Your task to perform on an android device: Empty the shopping cart on target. Add "jbl flip 4" to the cart on target, then select checkout. Image 0: 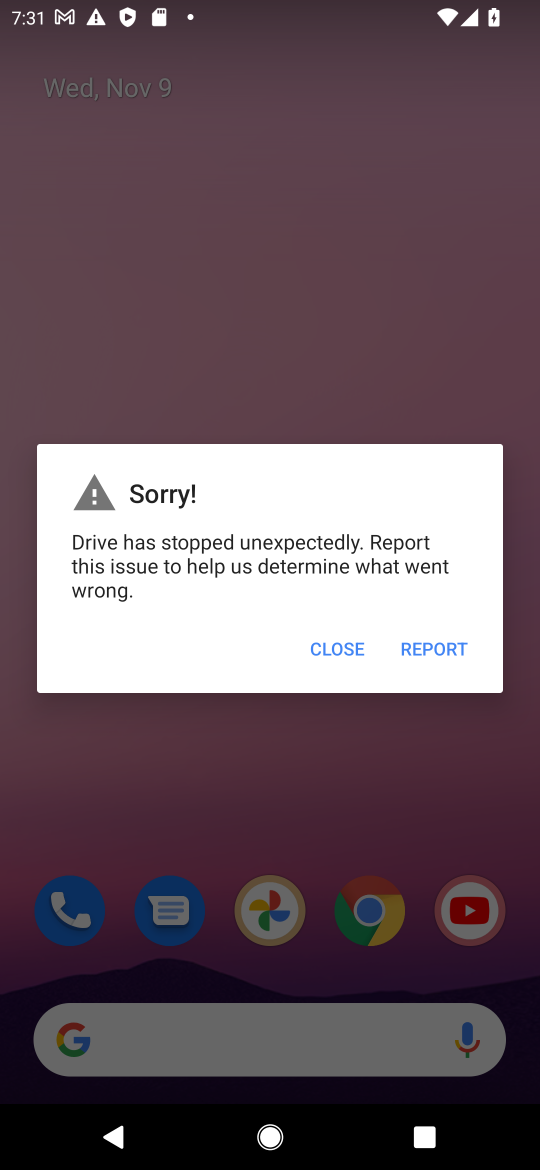
Step 0: press home button
Your task to perform on an android device: Empty the shopping cart on target. Add "jbl flip 4" to the cart on target, then select checkout. Image 1: 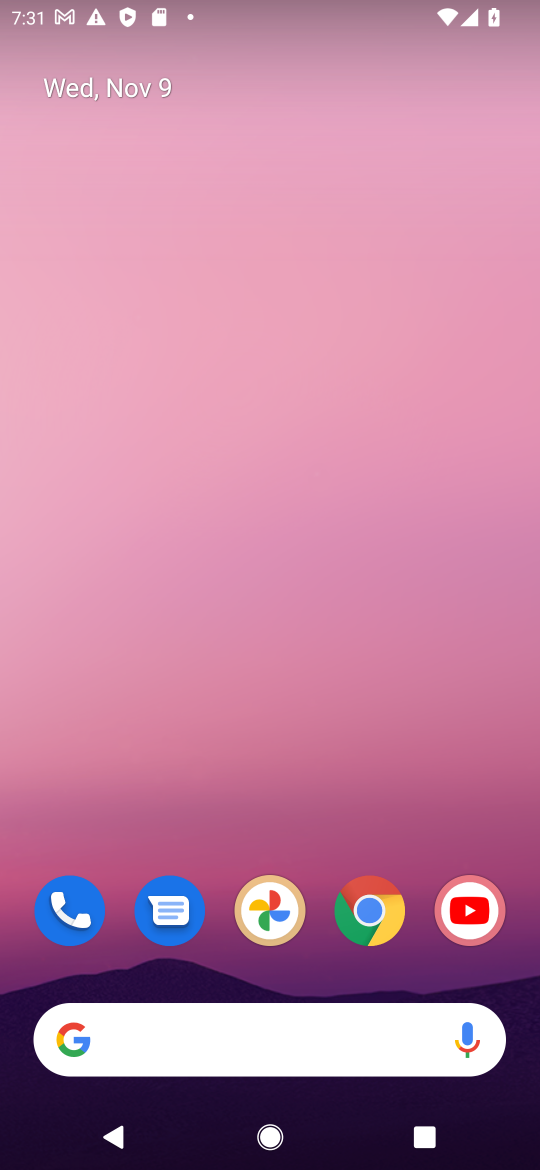
Step 1: click (372, 933)
Your task to perform on an android device: Empty the shopping cart on target. Add "jbl flip 4" to the cart on target, then select checkout. Image 2: 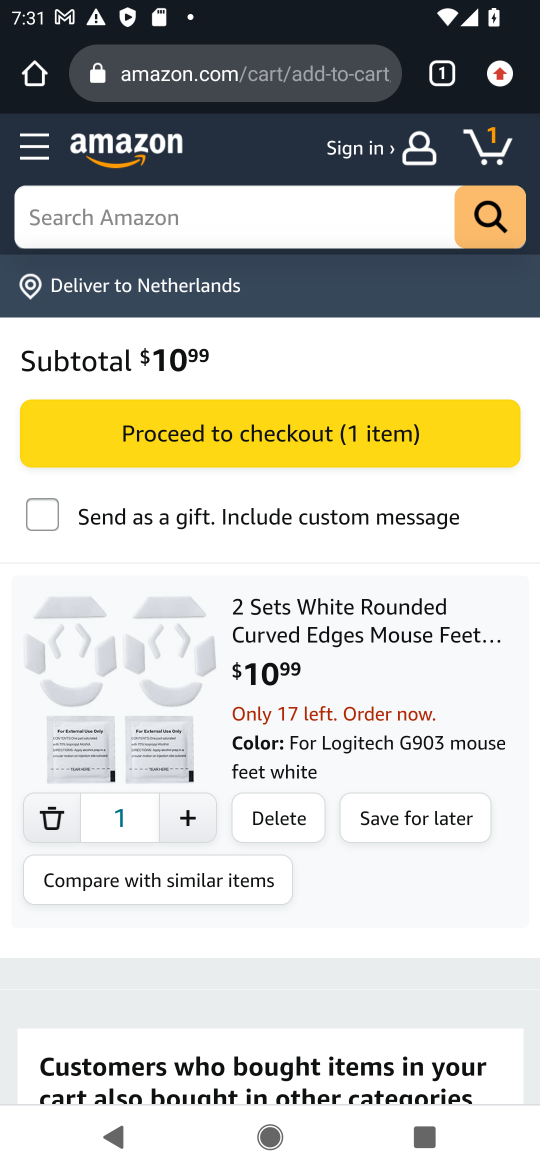
Step 2: click (203, 83)
Your task to perform on an android device: Empty the shopping cart on target. Add "jbl flip 4" to the cart on target, then select checkout. Image 3: 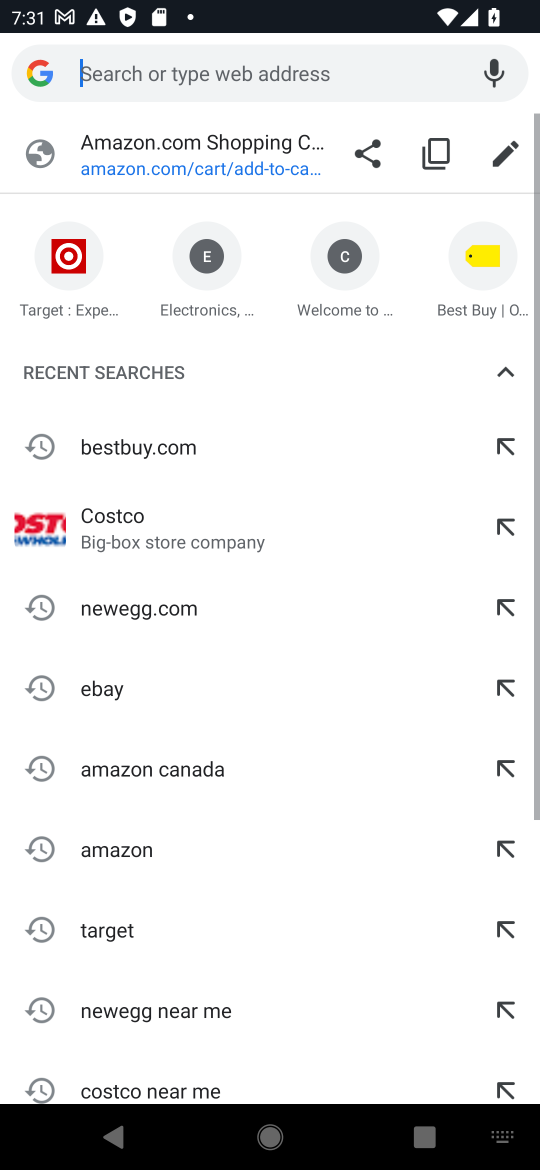
Step 3: click (72, 271)
Your task to perform on an android device: Empty the shopping cart on target. Add "jbl flip 4" to the cart on target, then select checkout. Image 4: 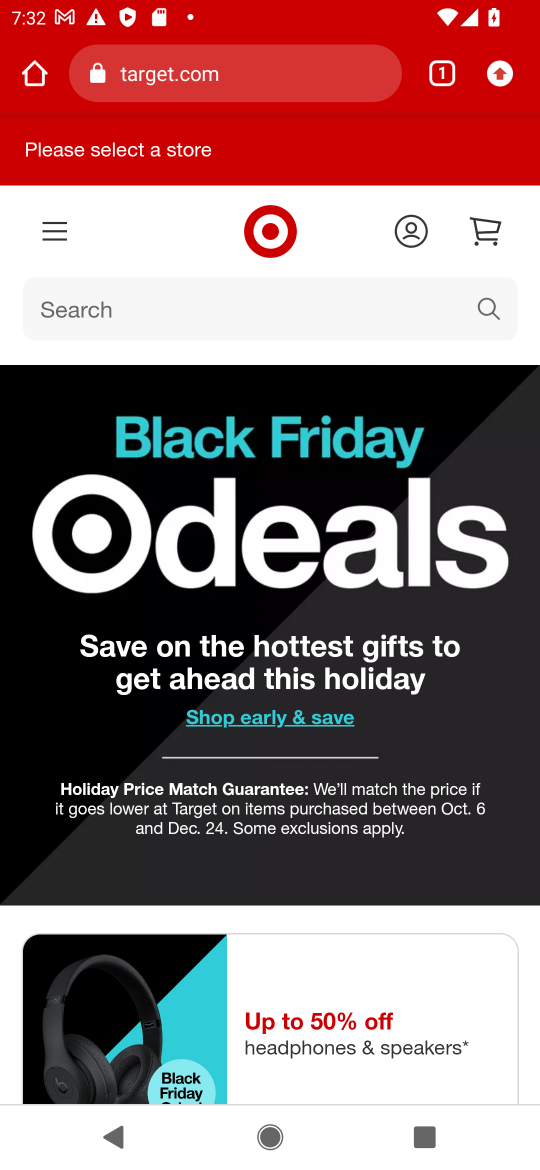
Step 4: click (496, 232)
Your task to perform on an android device: Empty the shopping cart on target. Add "jbl flip 4" to the cart on target, then select checkout. Image 5: 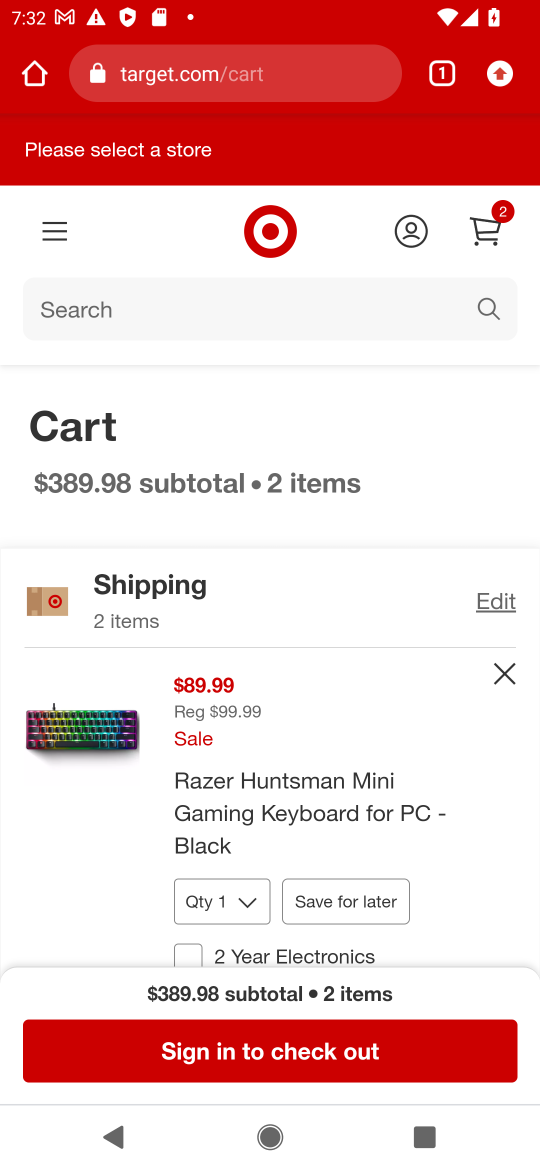
Step 5: drag from (317, 792) to (327, 509)
Your task to perform on an android device: Empty the shopping cart on target. Add "jbl flip 4" to the cart on target, then select checkout. Image 6: 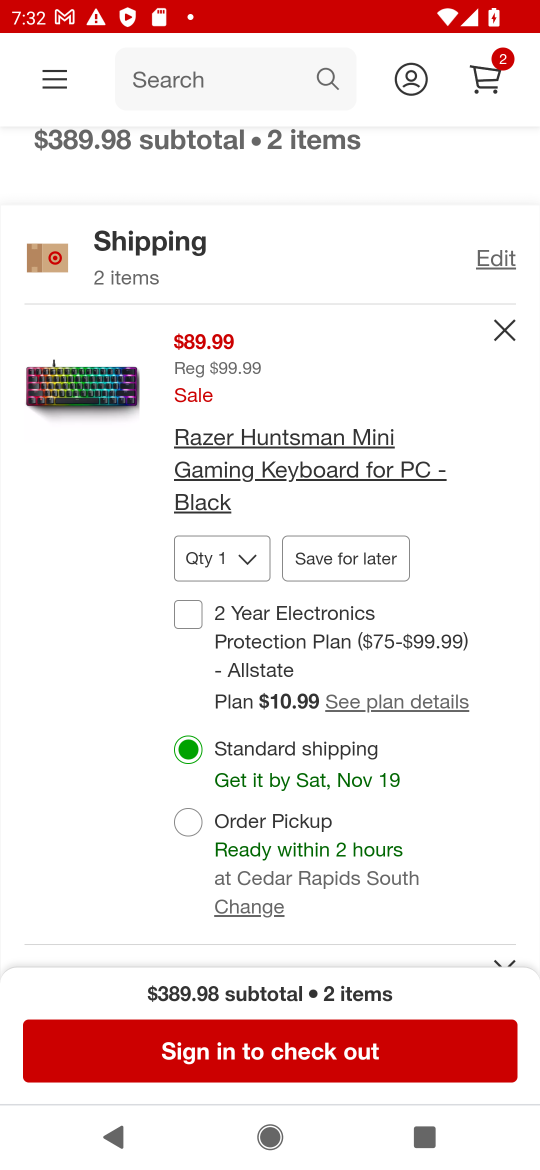
Step 6: click (514, 337)
Your task to perform on an android device: Empty the shopping cart on target. Add "jbl flip 4" to the cart on target, then select checkout. Image 7: 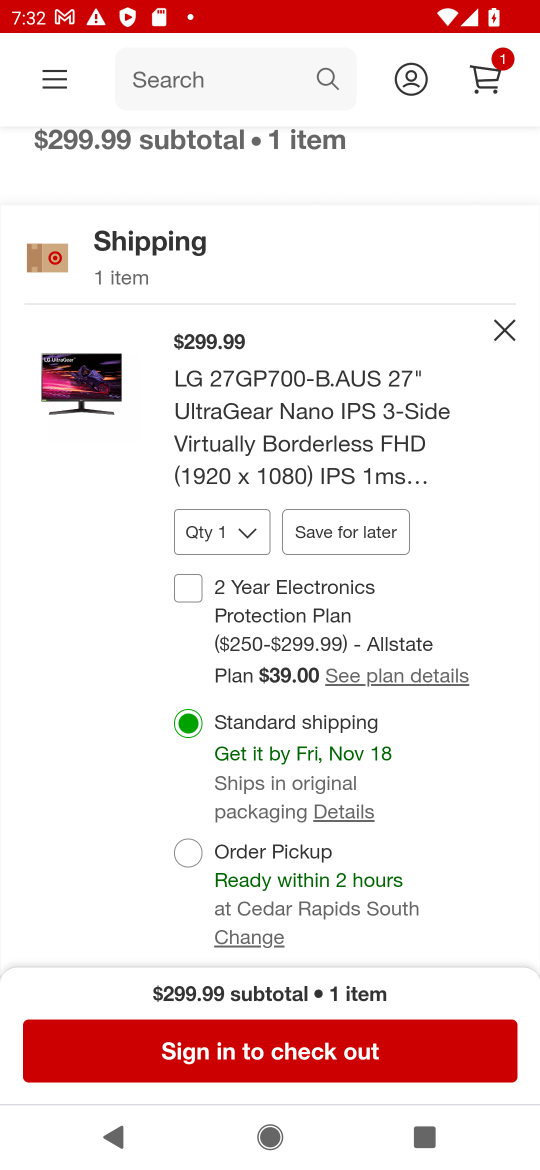
Step 7: click (496, 324)
Your task to perform on an android device: Empty the shopping cart on target. Add "jbl flip 4" to the cart on target, then select checkout. Image 8: 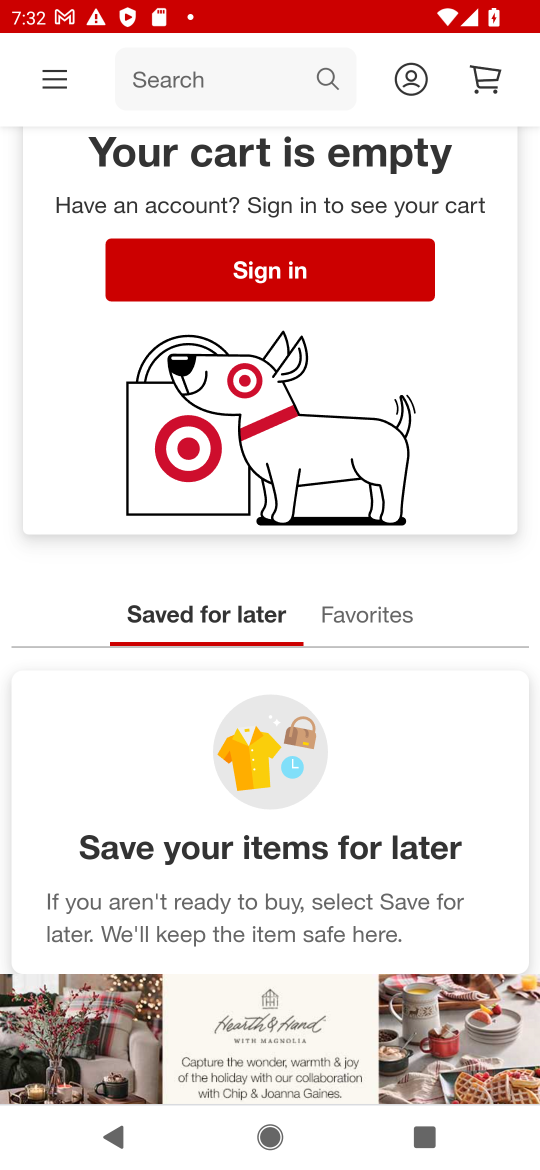
Step 8: drag from (342, 446) to (349, 800)
Your task to perform on an android device: Empty the shopping cart on target. Add "jbl flip 4" to the cart on target, then select checkout. Image 9: 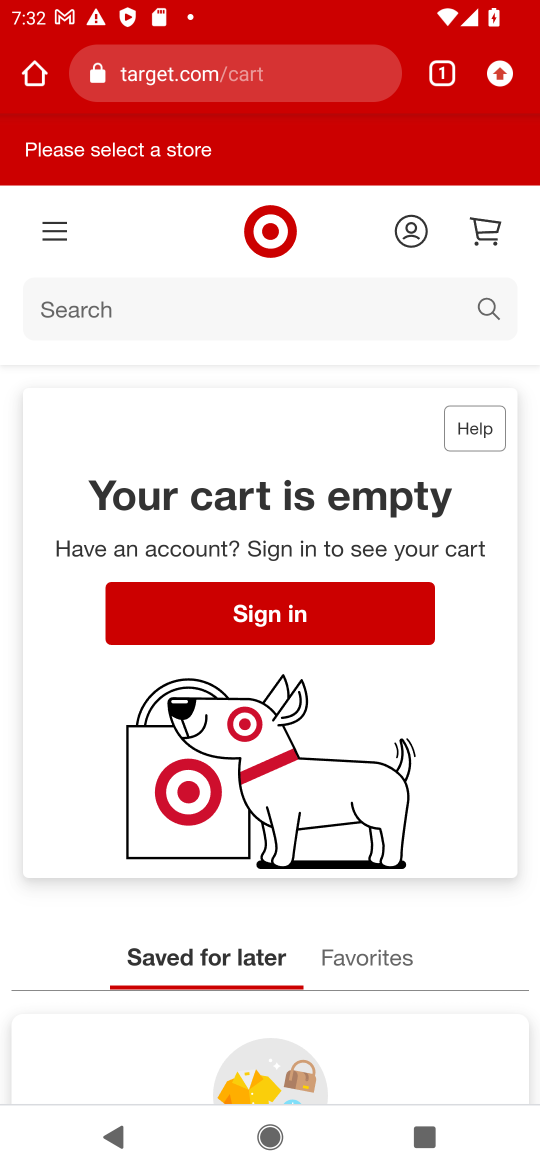
Step 9: click (469, 318)
Your task to perform on an android device: Empty the shopping cart on target. Add "jbl flip 4" to the cart on target, then select checkout. Image 10: 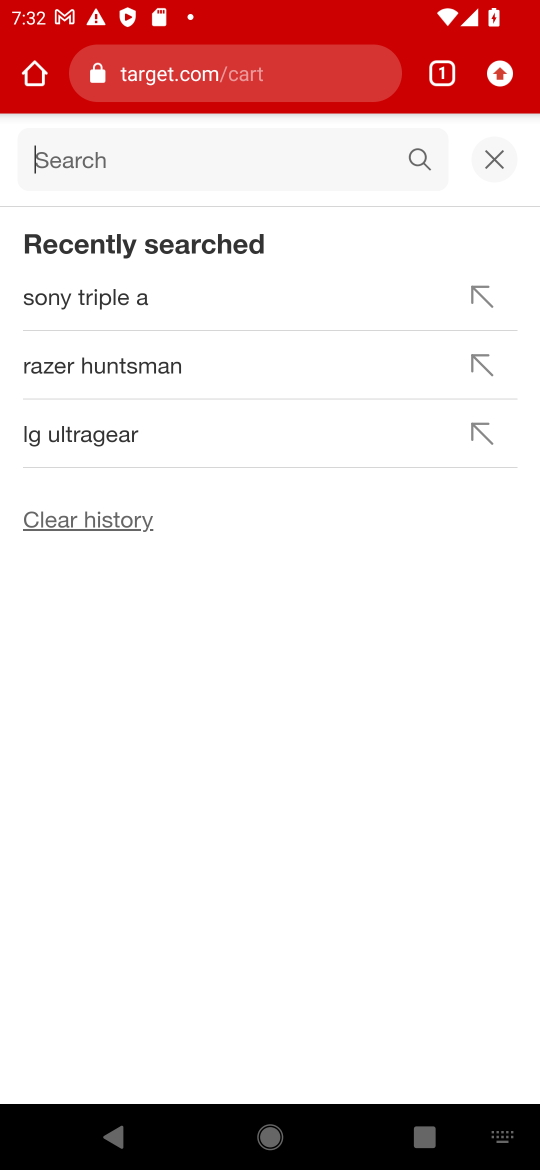
Step 10: type "jbl flip 4"
Your task to perform on an android device: Empty the shopping cart on target. Add "jbl flip 4" to the cart on target, then select checkout. Image 11: 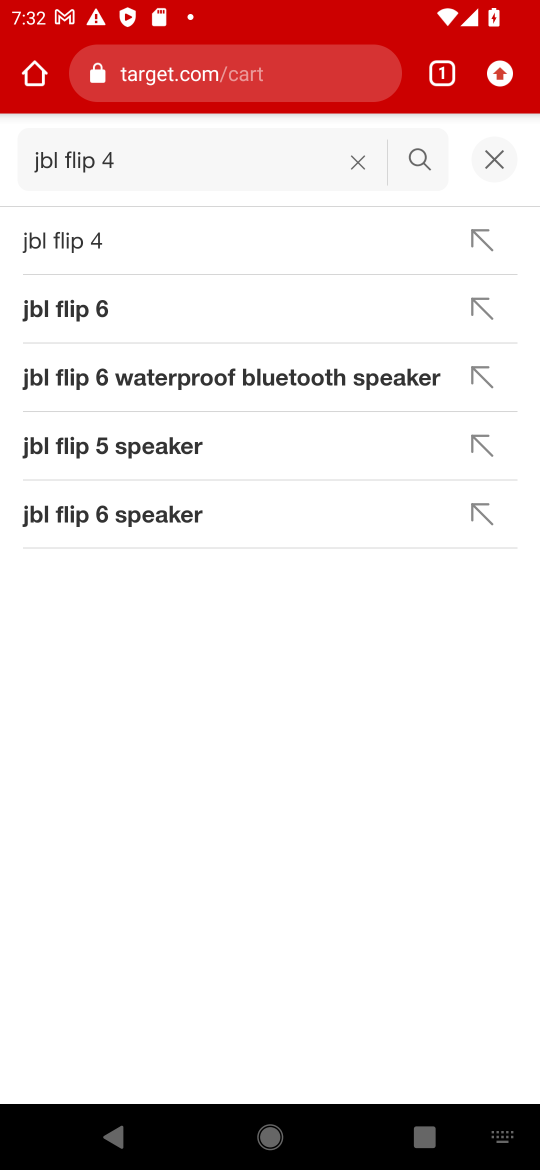
Step 11: click (66, 256)
Your task to perform on an android device: Empty the shopping cart on target. Add "jbl flip 4" to the cart on target, then select checkout. Image 12: 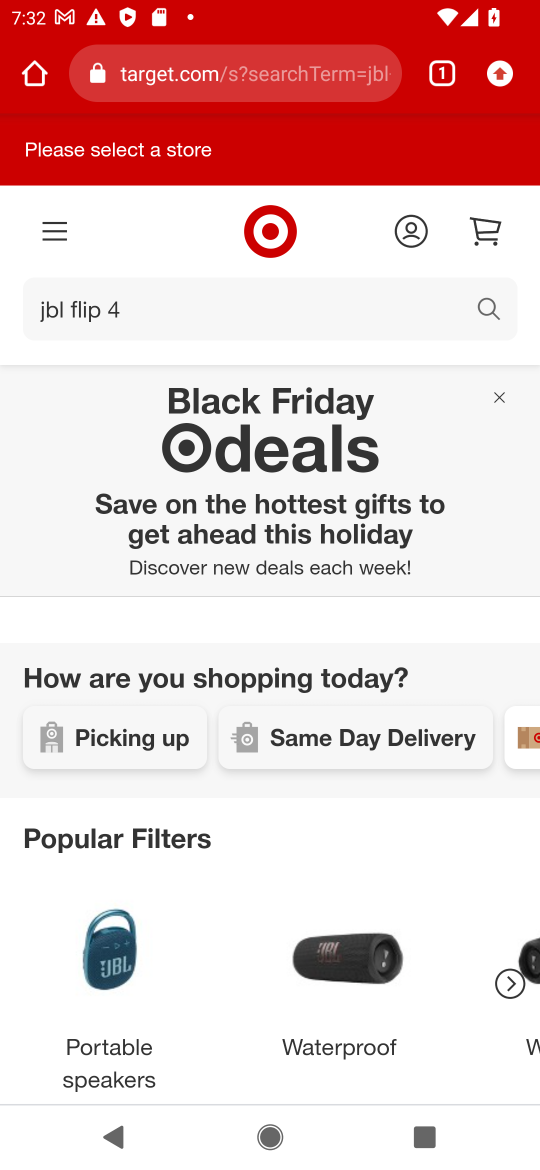
Step 12: task complete